Your task to perform on an android device: turn on translation in the chrome app Image 0: 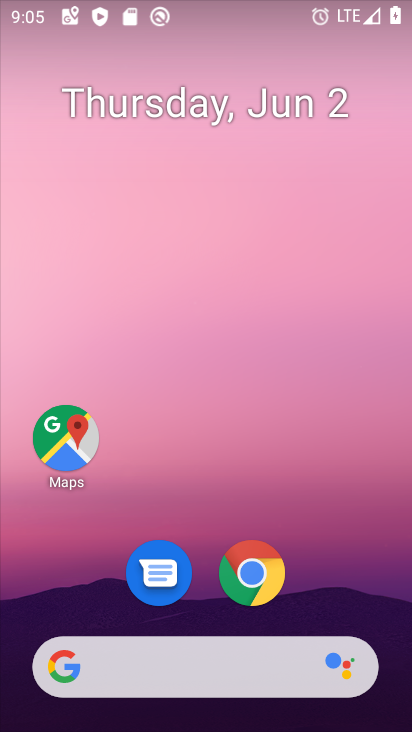
Step 0: press home button
Your task to perform on an android device: turn on translation in the chrome app Image 1: 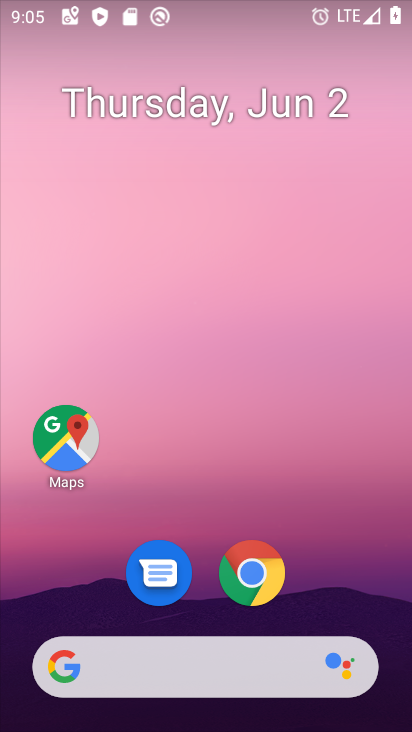
Step 1: click (251, 581)
Your task to perform on an android device: turn on translation in the chrome app Image 2: 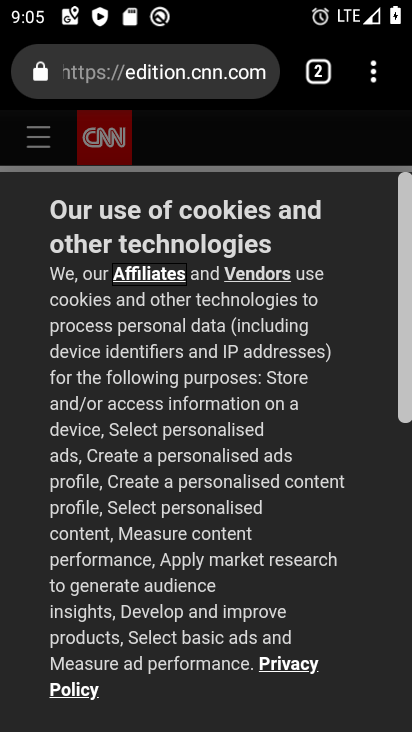
Step 2: drag from (372, 71) to (224, 581)
Your task to perform on an android device: turn on translation in the chrome app Image 3: 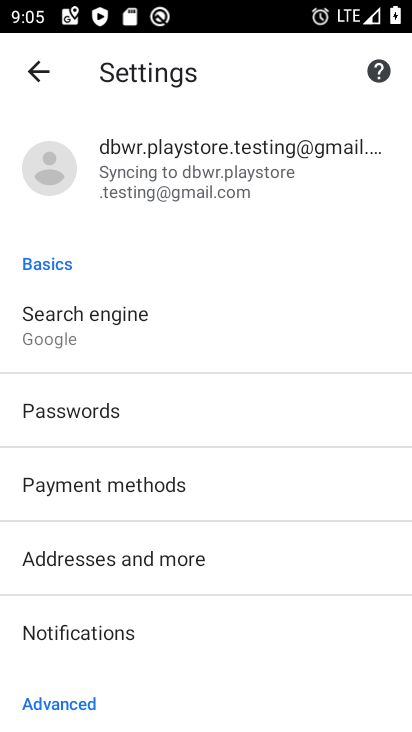
Step 3: drag from (234, 640) to (274, 266)
Your task to perform on an android device: turn on translation in the chrome app Image 4: 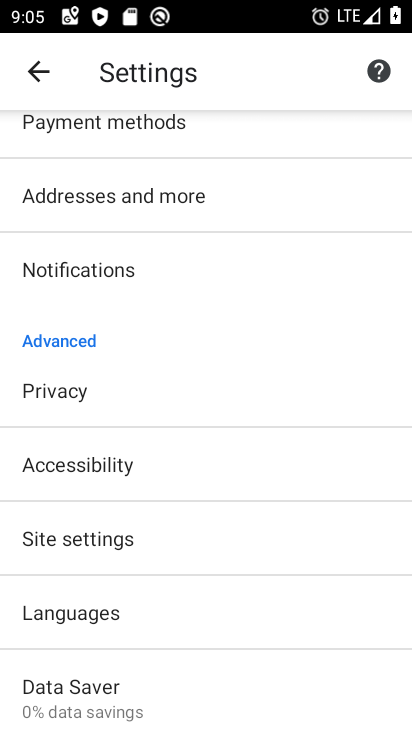
Step 4: click (115, 610)
Your task to perform on an android device: turn on translation in the chrome app Image 5: 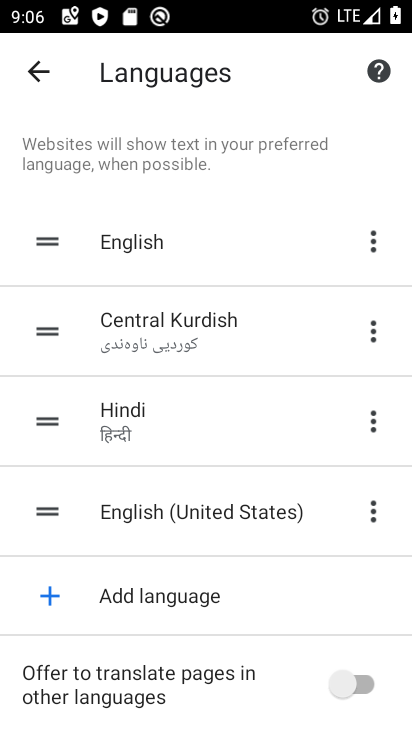
Step 5: click (234, 695)
Your task to perform on an android device: turn on translation in the chrome app Image 6: 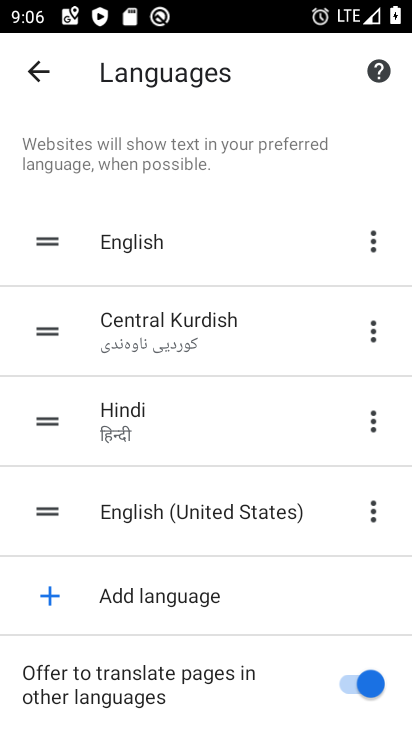
Step 6: task complete